Your task to perform on an android device: Go to privacy settings Image 0: 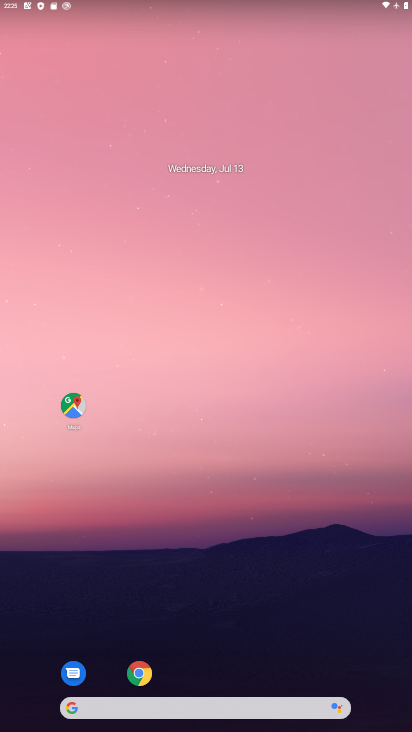
Step 0: drag from (226, 369) to (226, 132)
Your task to perform on an android device: Go to privacy settings Image 1: 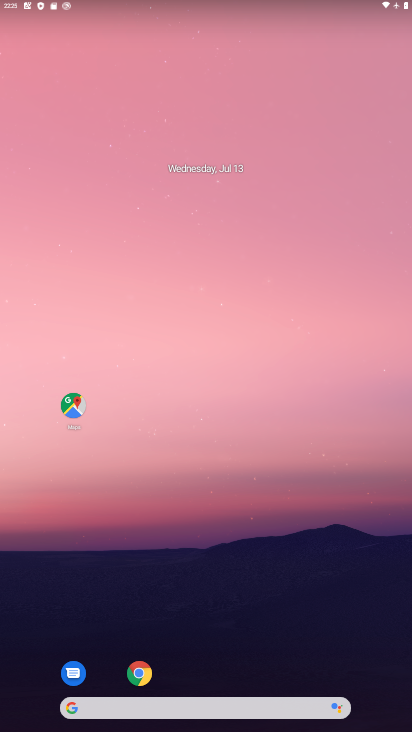
Step 1: drag from (201, 671) to (181, 233)
Your task to perform on an android device: Go to privacy settings Image 2: 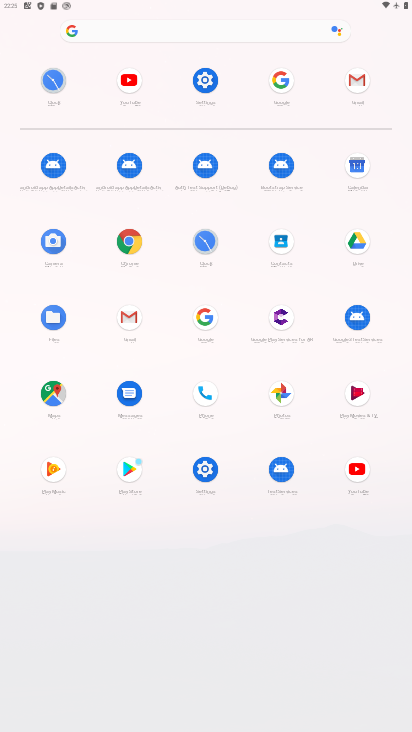
Step 2: click (216, 88)
Your task to perform on an android device: Go to privacy settings Image 3: 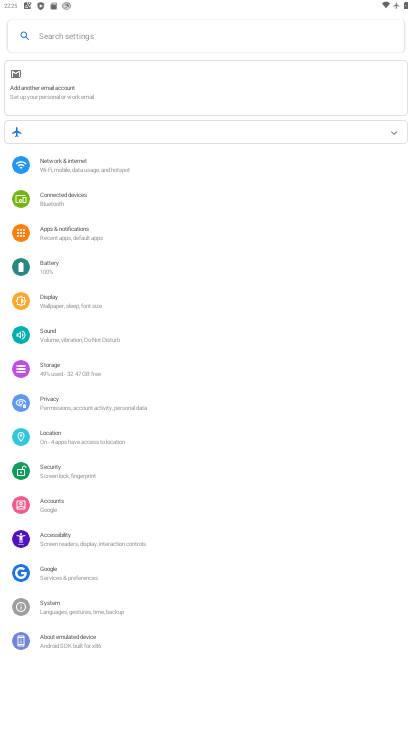
Step 3: click (64, 399)
Your task to perform on an android device: Go to privacy settings Image 4: 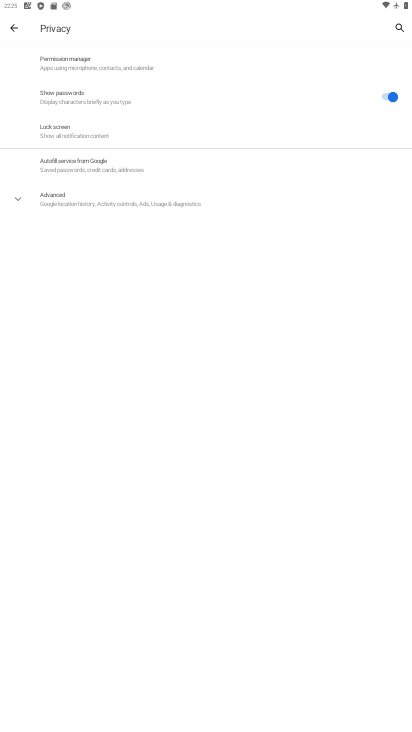
Step 4: task complete